Your task to perform on an android device: Is it going to rain this weekend? Image 0: 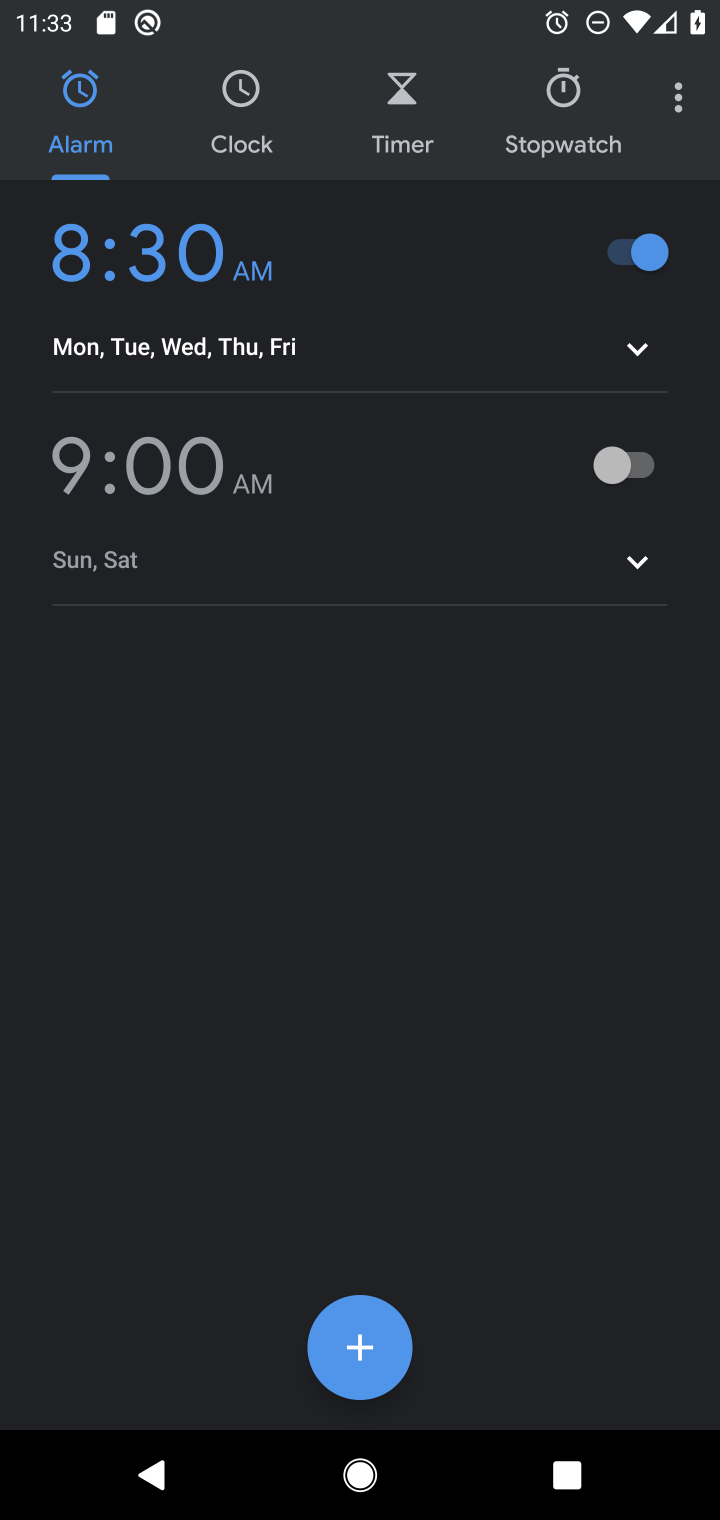
Step 0: press home button
Your task to perform on an android device: Is it going to rain this weekend? Image 1: 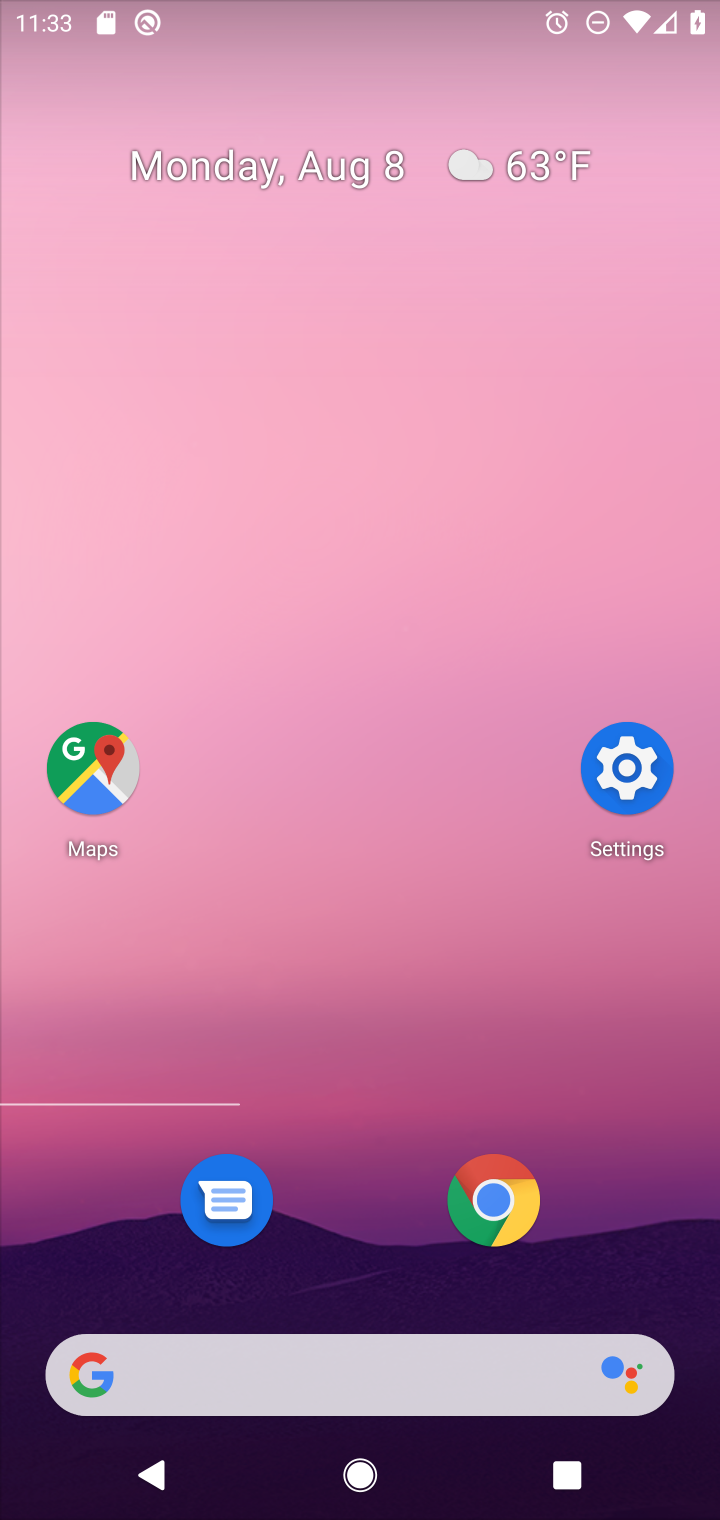
Step 1: click (285, 1335)
Your task to perform on an android device: Is it going to rain this weekend? Image 2: 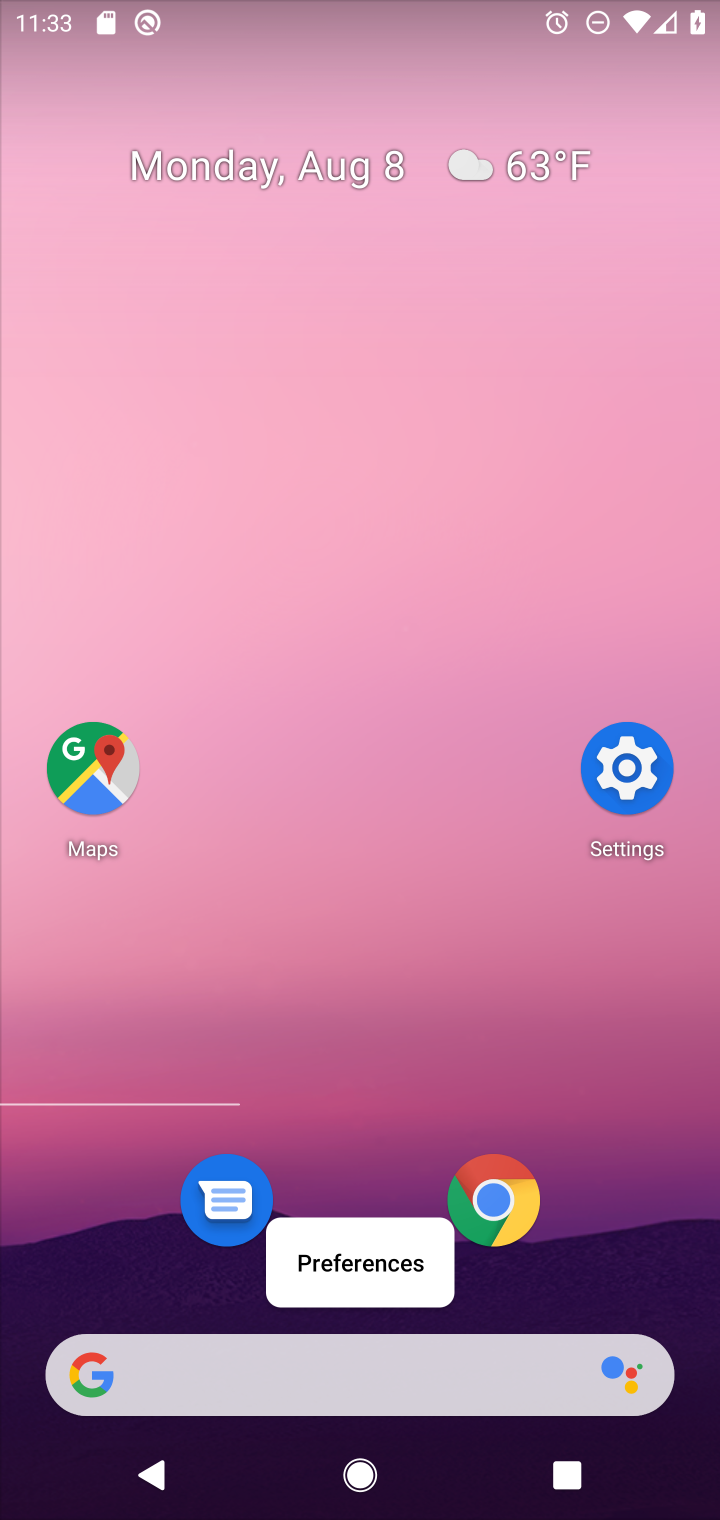
Step 2: click (251, 1362)
Your task to perform on an android device: Is it going to rain this weekend? Image 3: 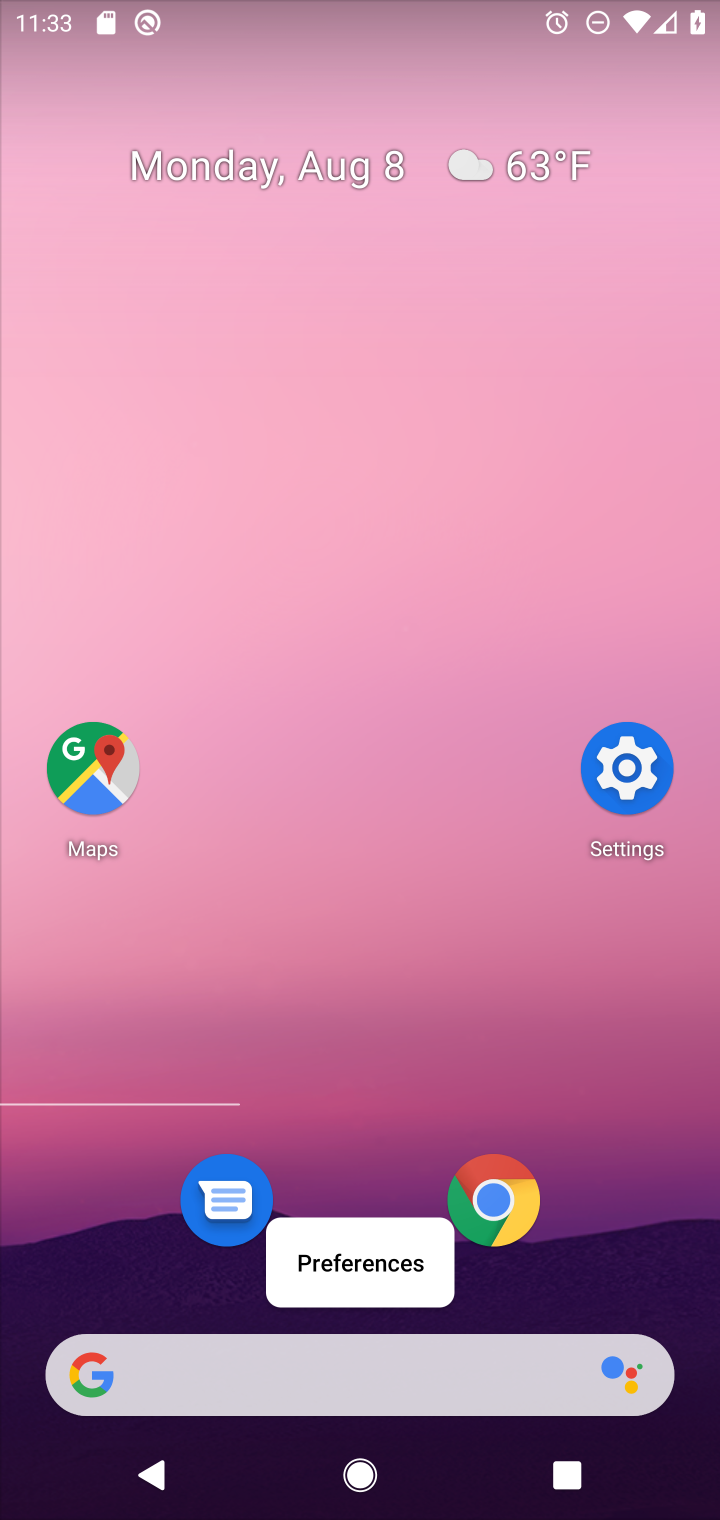
Step 3: click (283, 1363)
Your task to perform on an android device: Is it going to rain this weekend? Image 4: 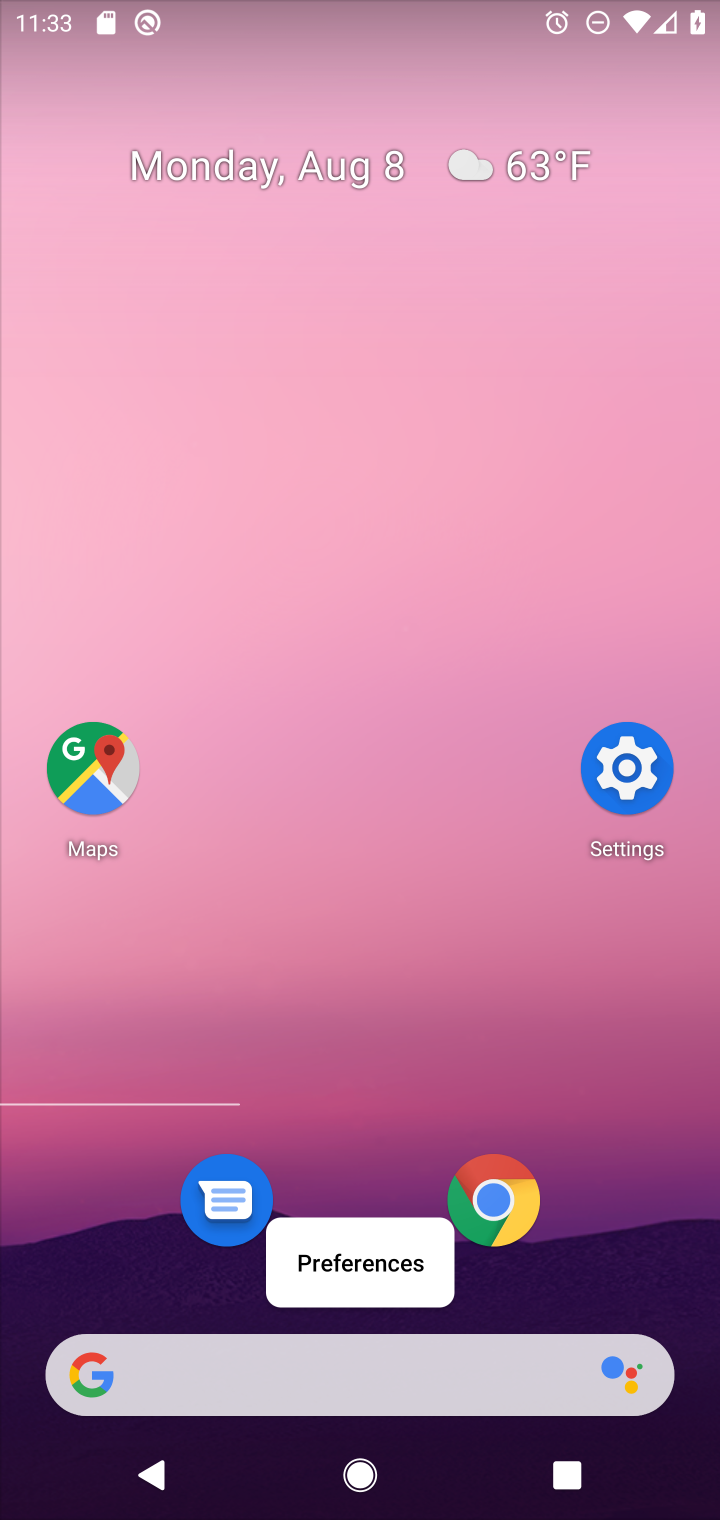
Step 4: click (283, 1363)
Your task to perform on an android device: Is it going to rain this weekend? Image 5: 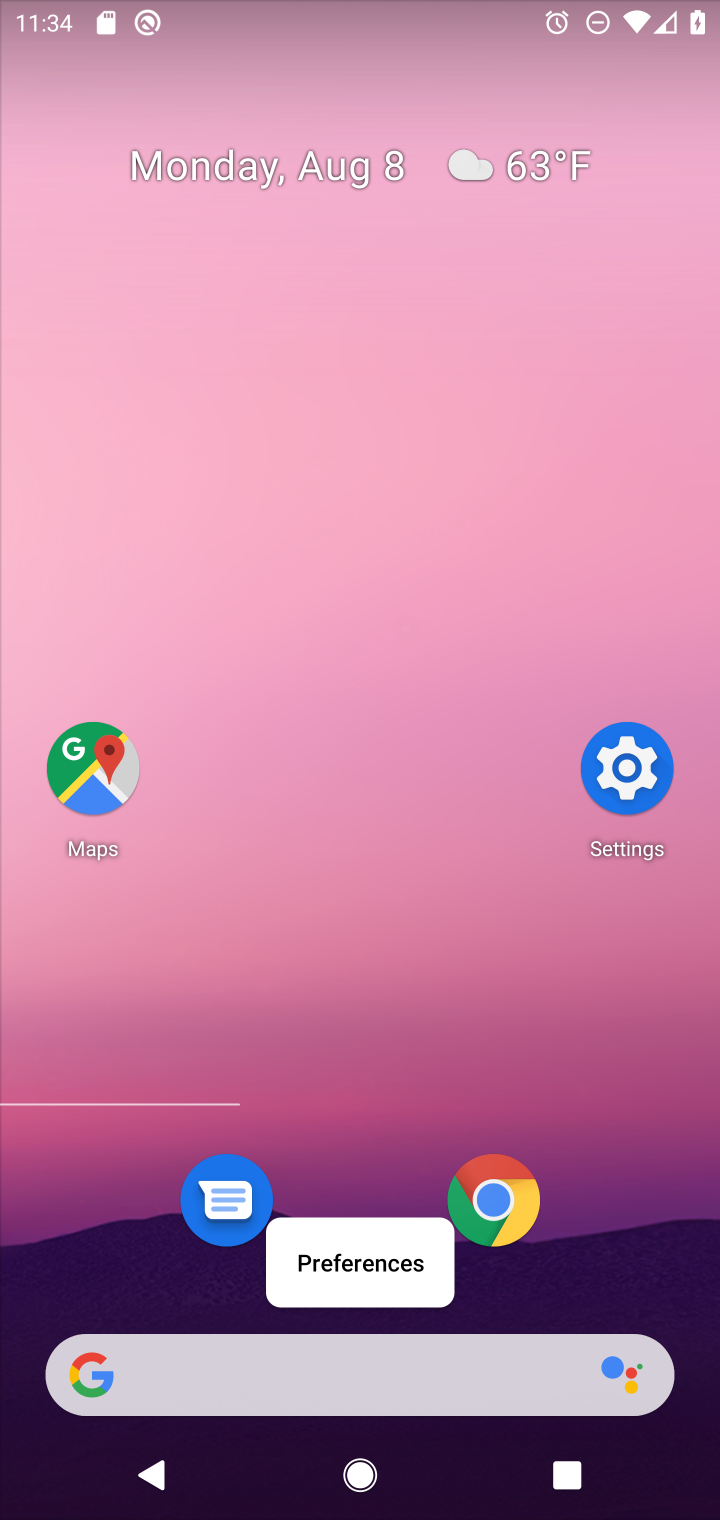
Step 5: click (283, 1367)
Your task to perform on an android device: Is it going to rain this weekend? Image 6: 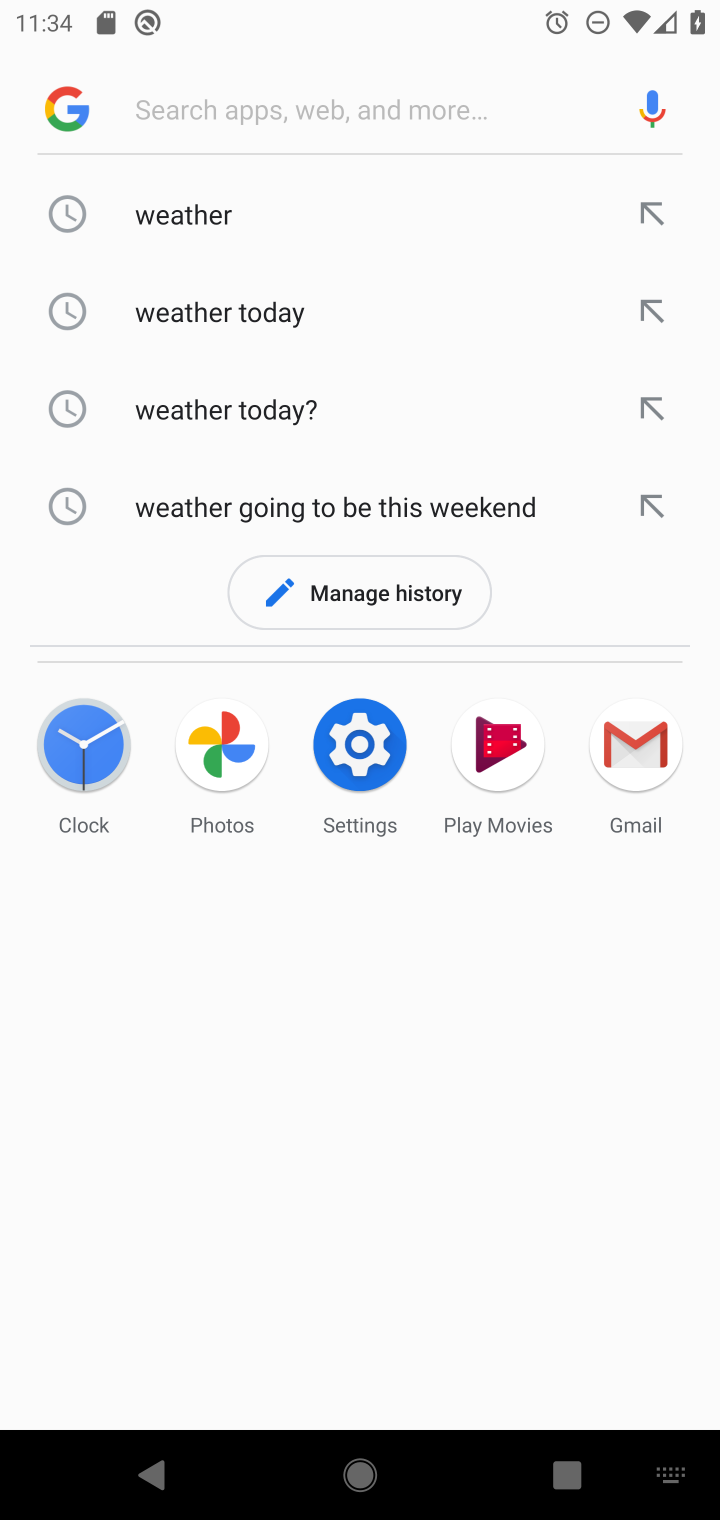
Step 6: click (648, 204)
Your task to perform on an android device: Is it going to rain this weekend? Image 7: 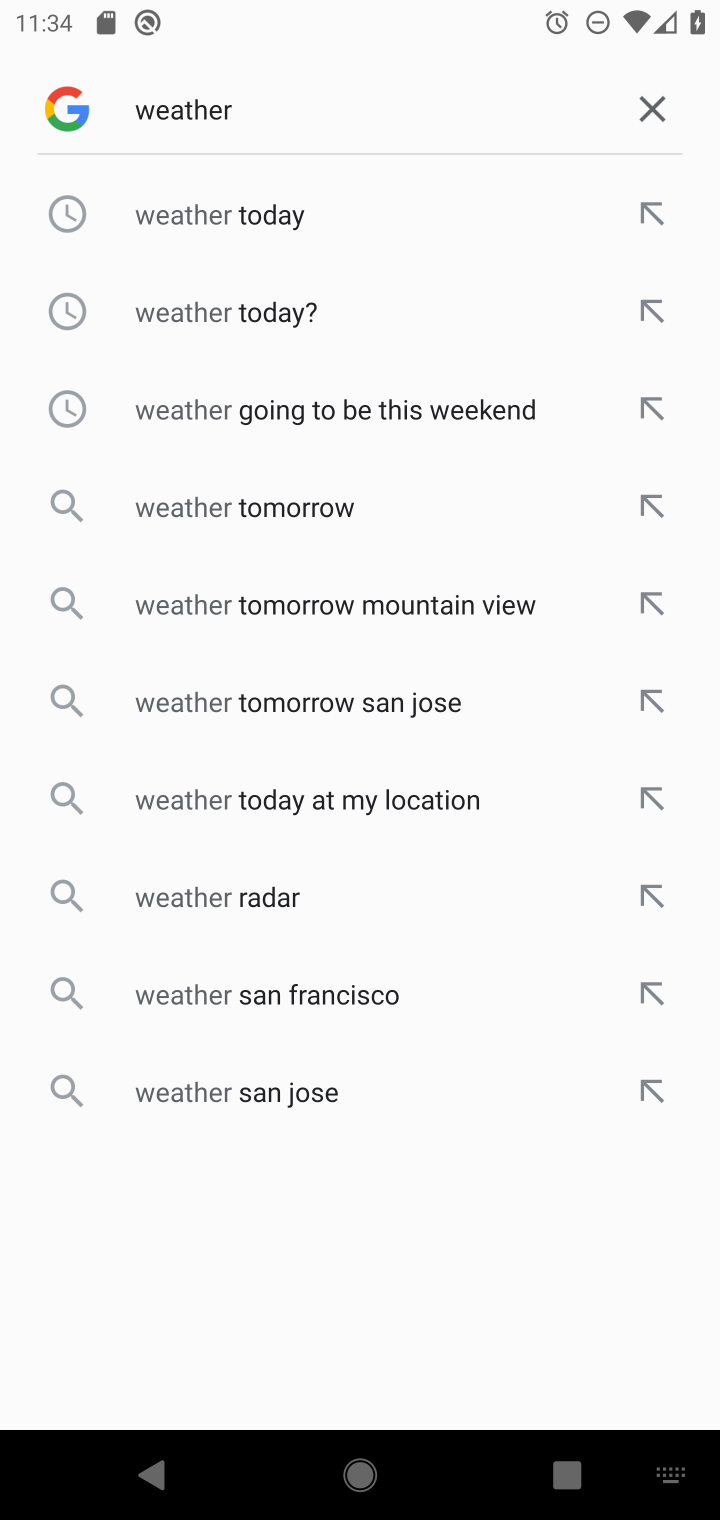
Step 7: click (647, 208)
Your task to perform on an android device: Is it going to rain this weekend? Image 8: 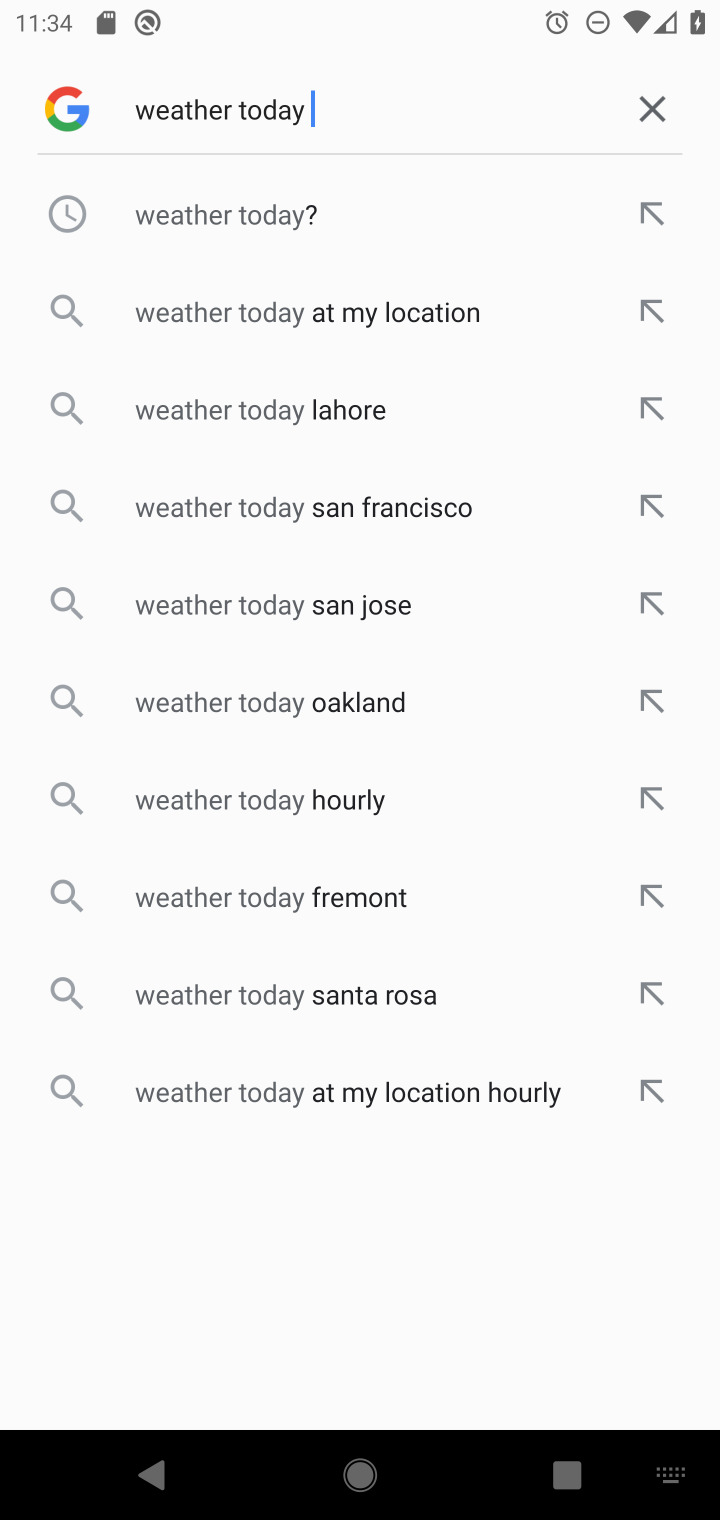
Step 8: click (647, 201)
Your task to perform on an android device: Is it going to rain this weekend? Image 9: 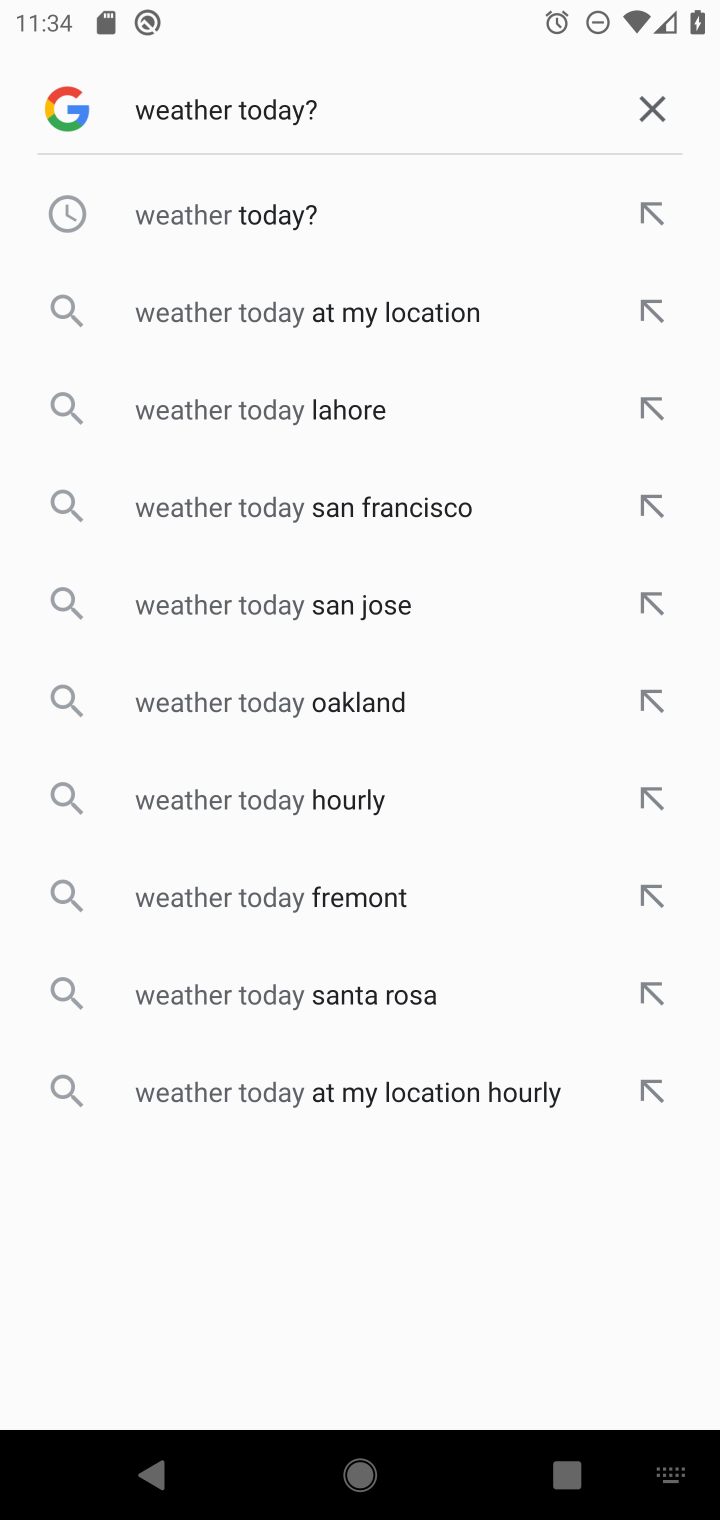
Step 9: click (651, 210)
Your task to perform on an android device: Is it going to rain this weekend? Image 10: 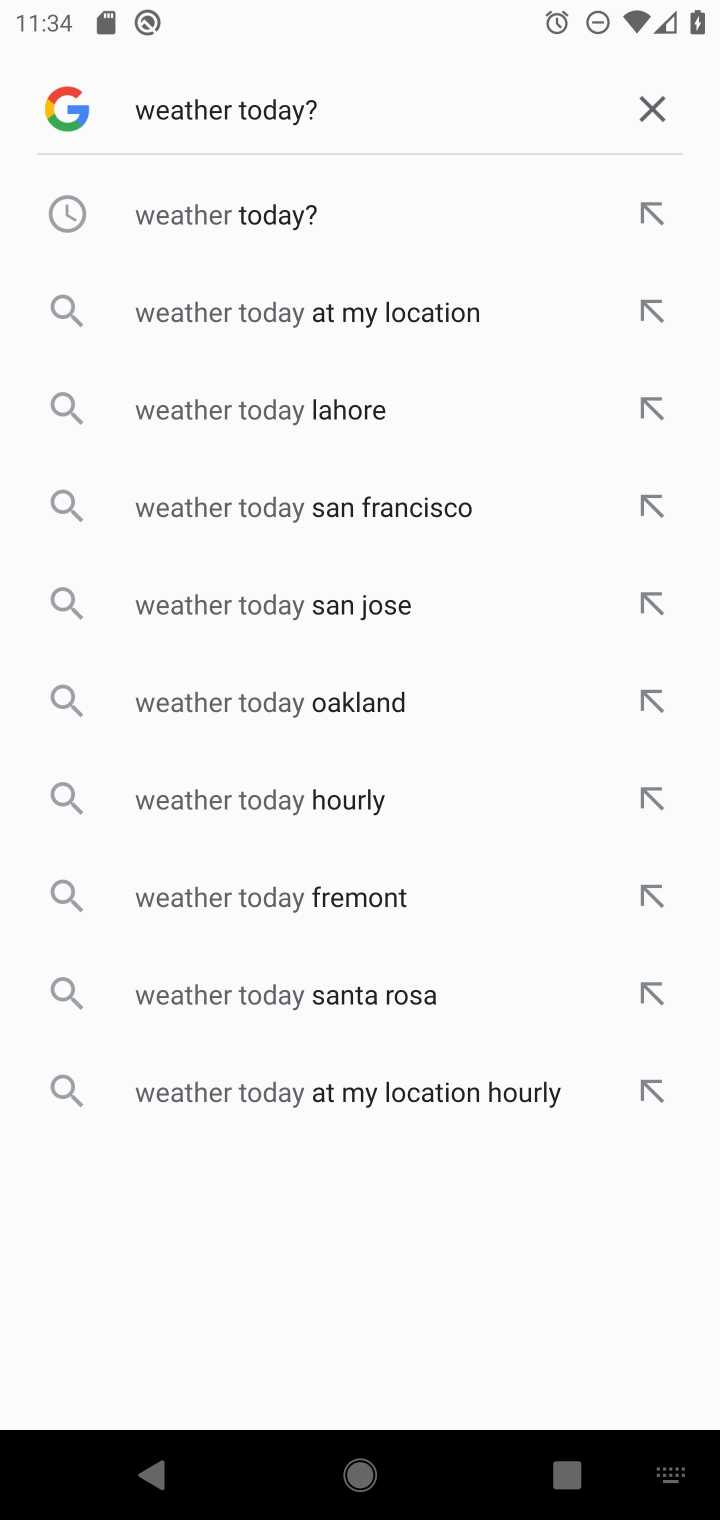
Step 10: click (257, 210)
Your task to perform on an android device: Is it going to rain this weekend? Image 11: 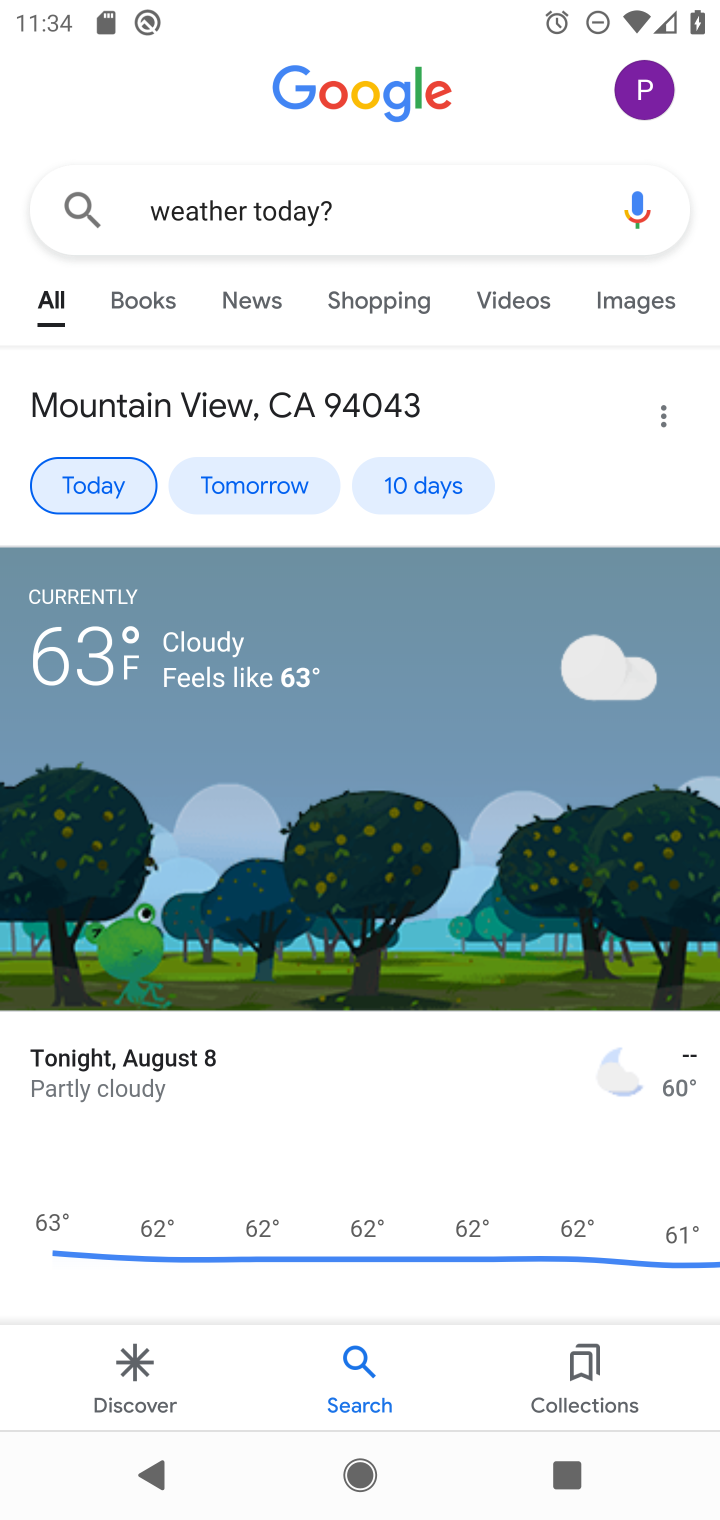
Step 11: click (425, 492)
Your task to perform on an android device: Is it going to rain this weekend? Image 12: 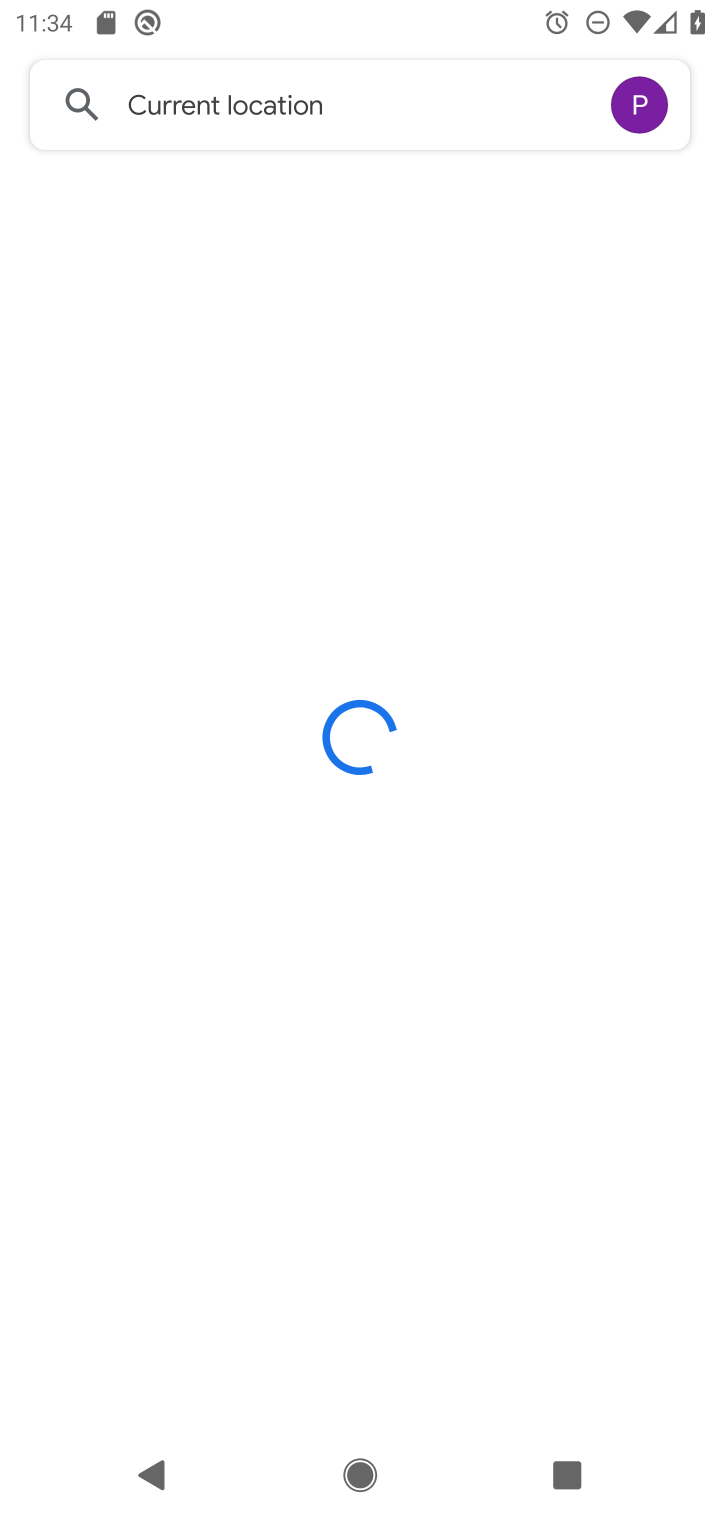
Step 12: click (429, 479)
Your task to perform on an android device: Is it going to rain this weekend? Image 13: 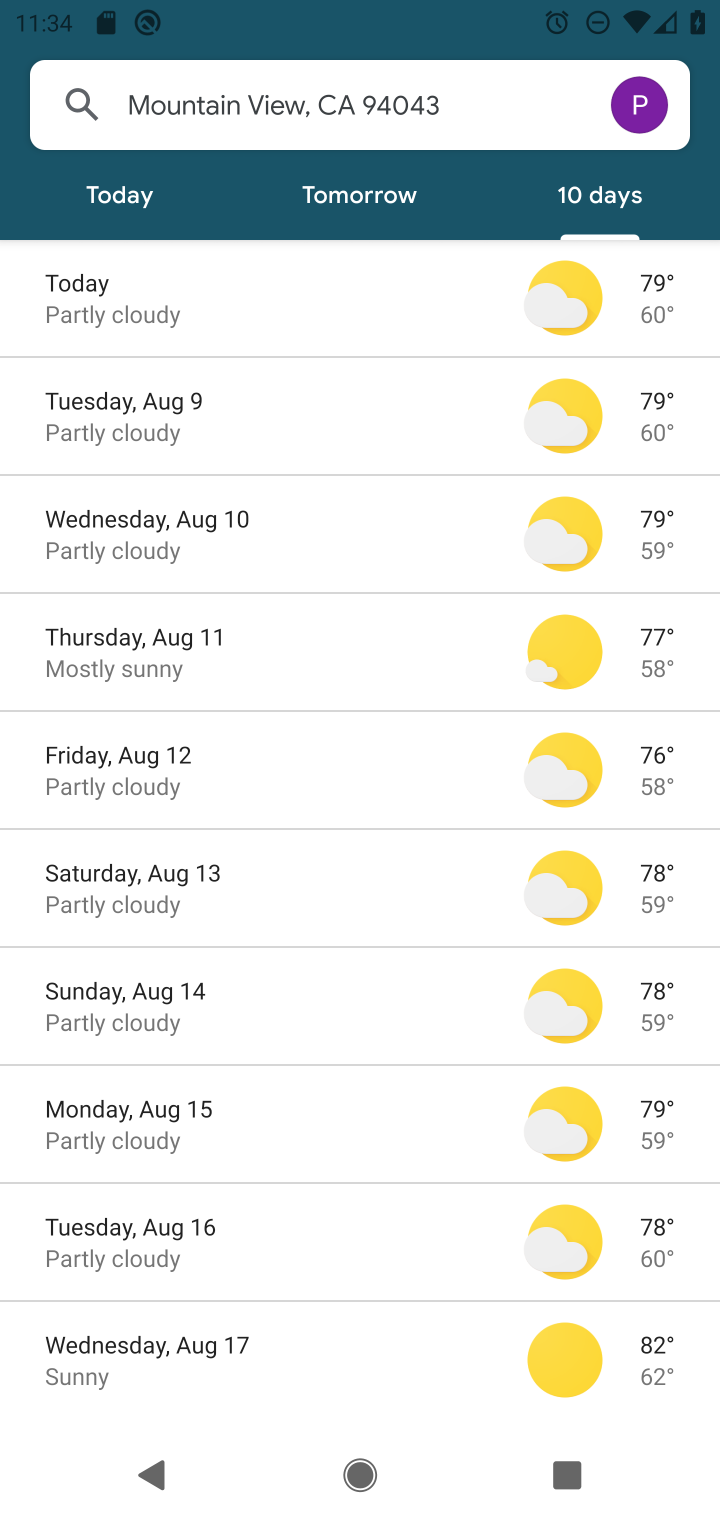
Step 13: click (161, 871)
Your task to perform on an android device: Is it going to rain this weekend? Image 14: 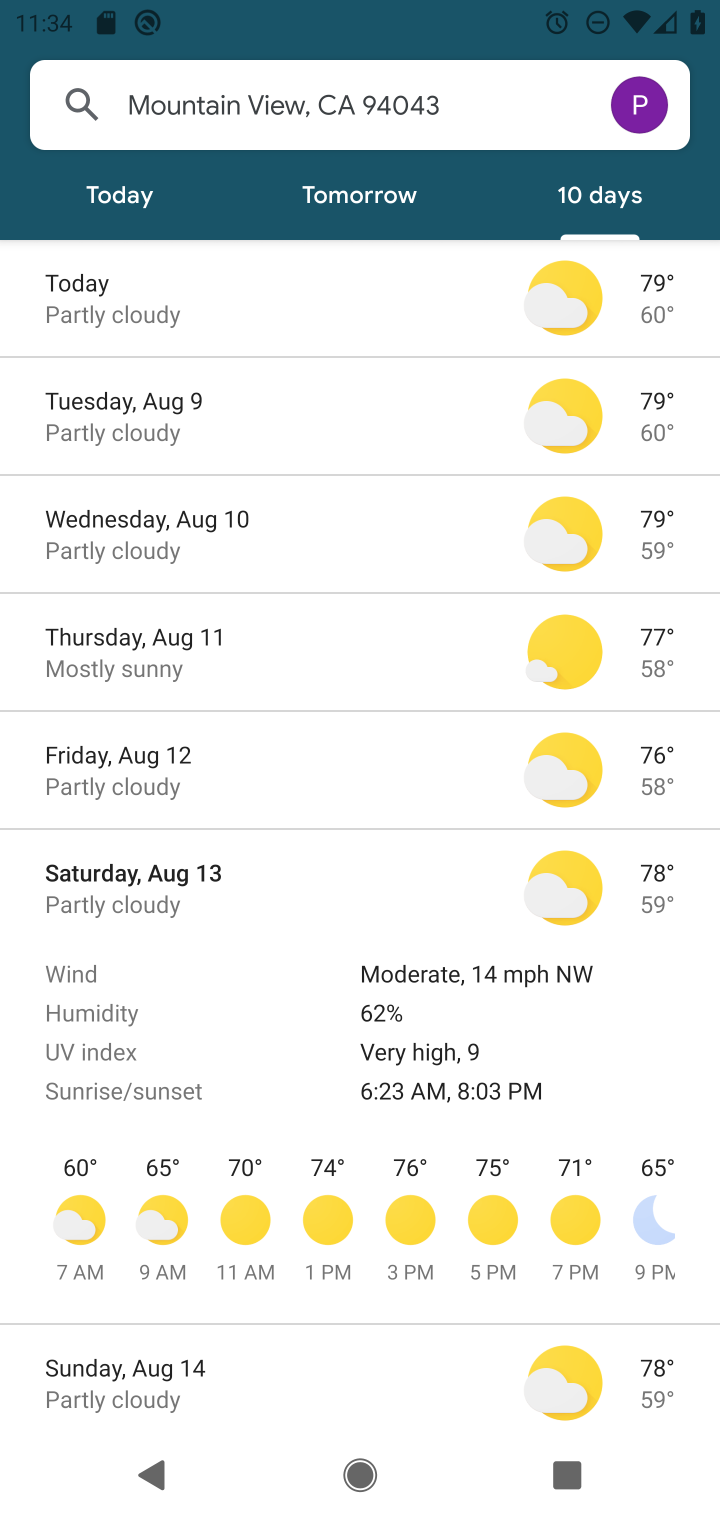
Step 14: task complete